Your task to perform on an android device: set the stopwatch Image 0: 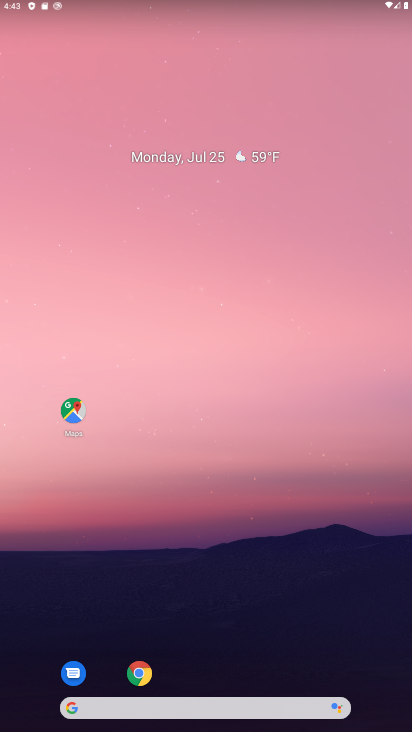
Step 0: drag from (265, 568) to (265, 88)
Your task to perform on an android device: set the stopwatch Image 1: 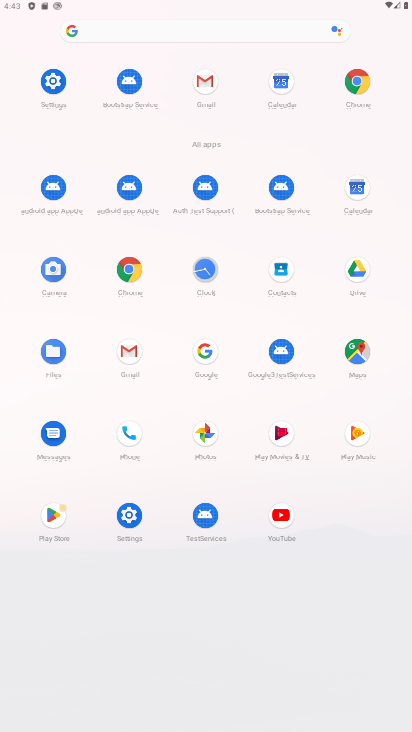
Step 1: click (208, 268)
Your task to perform on an android device: set the stopwatch Image 2: 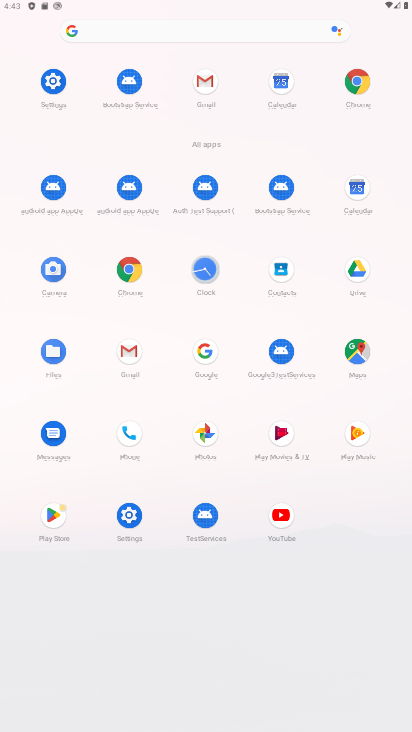
Step 2: click (208, 267)
Your task to perform on an android device: set the stopwatch Image 3: 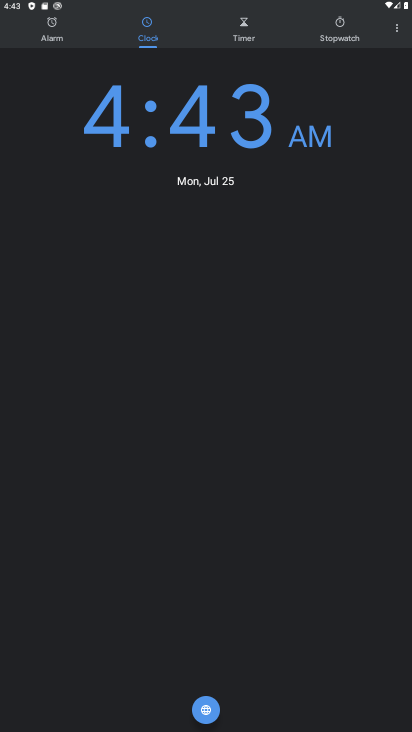
Step 3: click (335, 35)
Your task to perform on an android device: set the stopwatch Image 4: 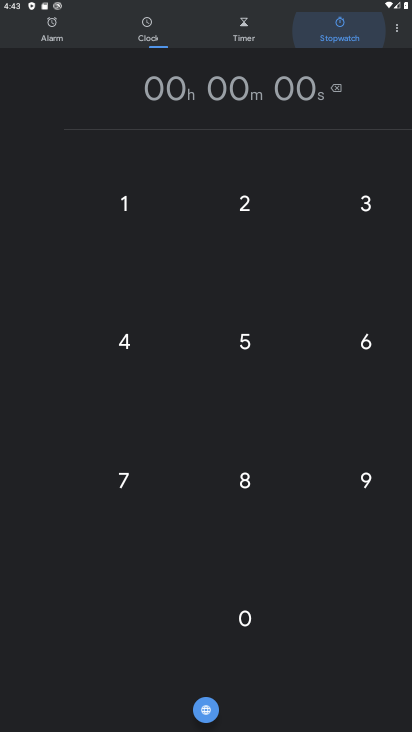
Step 4: click (333, 32)
Your task to perform on an android device: set the stopwatch Image 5: 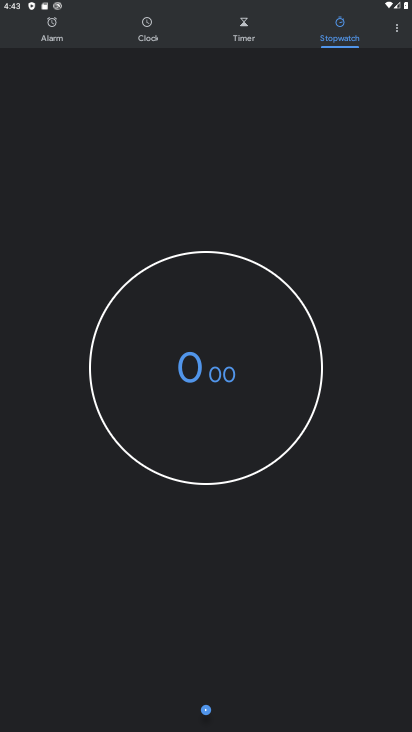
Step 5: click (332, 31)
Your task to perform on an android device: set the stopwatch Image 6: 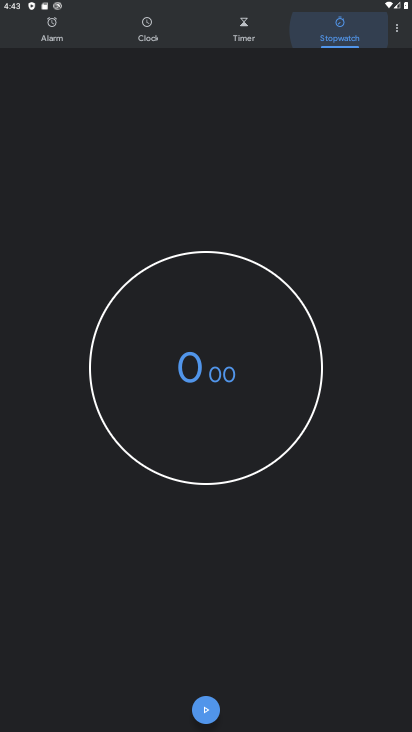
Step 6: click (326, 31)
Your task to perform on an android device: set the stopwatch Image 7: 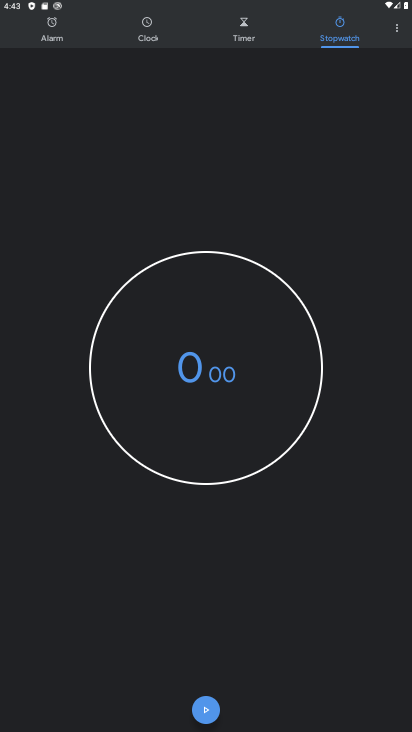
Step 7: click (200, 718)
Your task to perform on an android device: set the stopwatch Image 8: 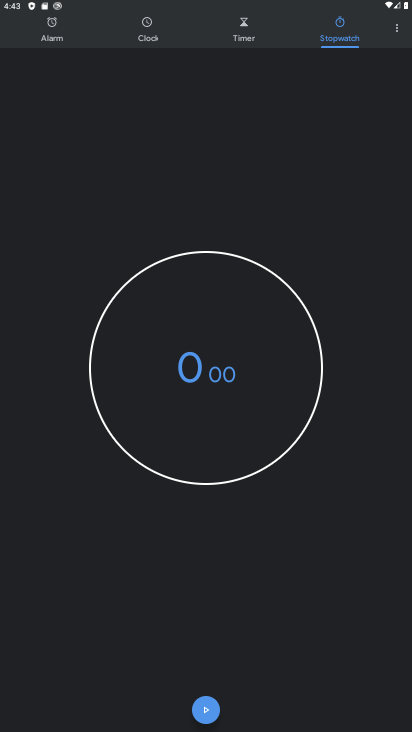
Step 8: click (203, 718)
Your task to perform on an android device: set the stopwatch Image 9: 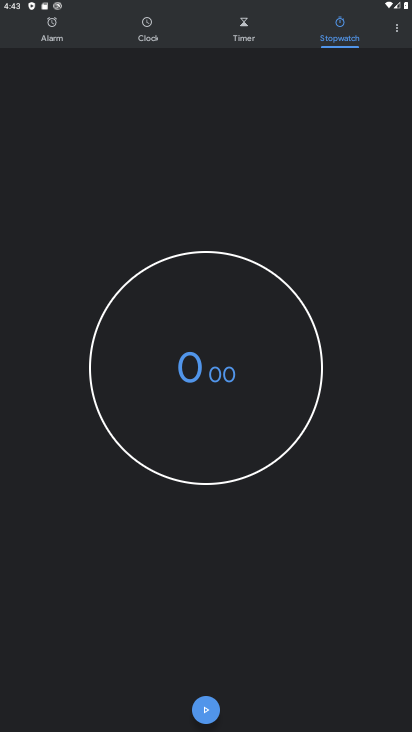
Step 9: click (203, 718)
Your task to perform on an android device: set the stopwatch Image 10: 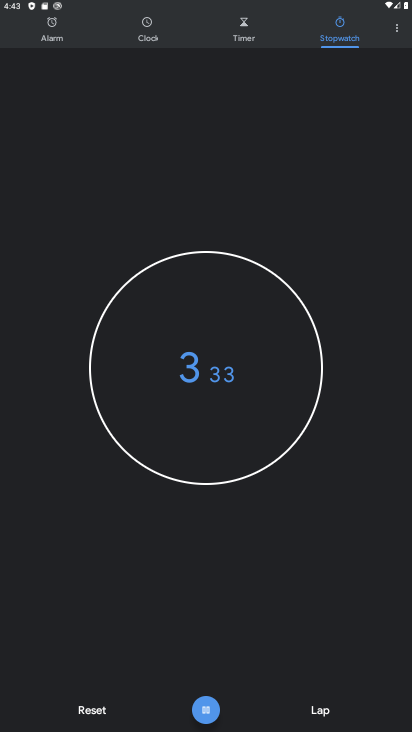
Step 10: click (207, 713)
Your task to perform on an android device: set the stopwatch Image 11: 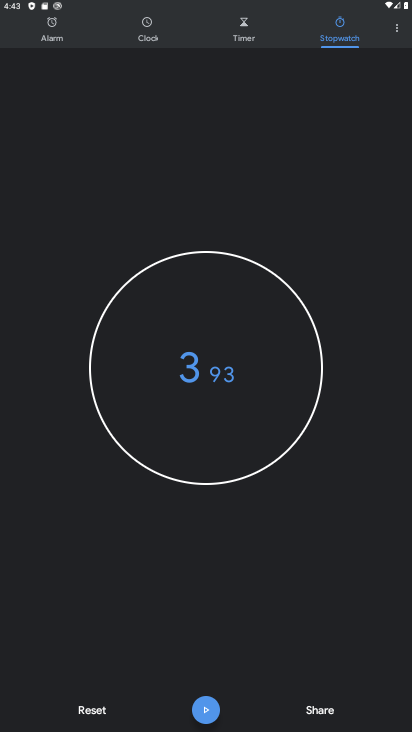
Step 11: task complete